Your task to perform on an android device: Set the phone to "Do not disturb". Image 0: 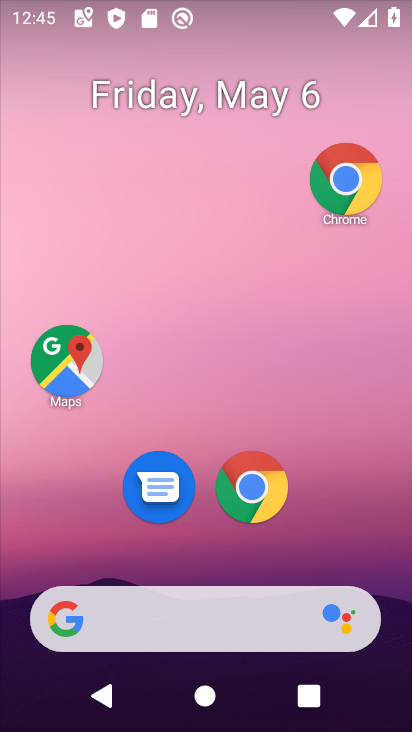
Step 0: drag from (353, 532) to (300, 183)
Your task to perform on an android device: Set the phone to "Do not disturb". Image 1: 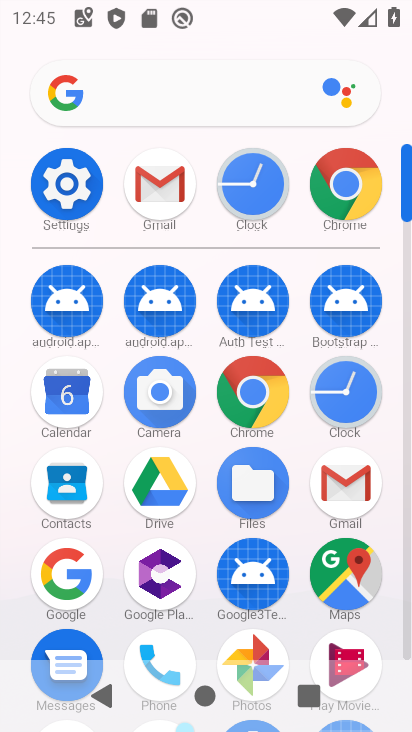
Step 1: click (88, 196)
Your task to perform on an android device: Set the phone to "Do not disturb". Image 2: 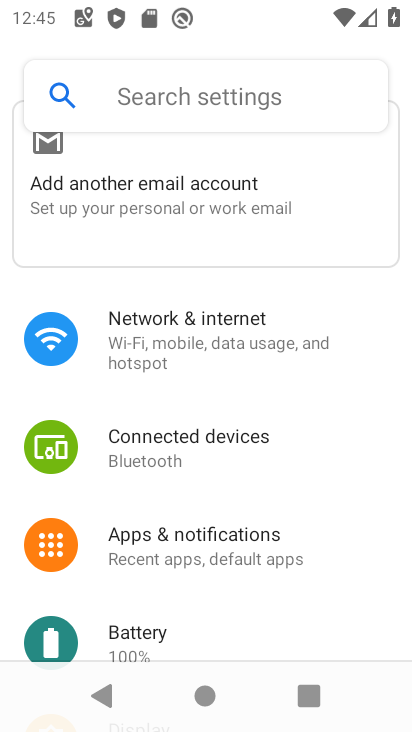
Step 2: drag from (208, 541) to (203, 438)
Your task to perform on an android device: Set the phone to "Do not disturb". Image 3: 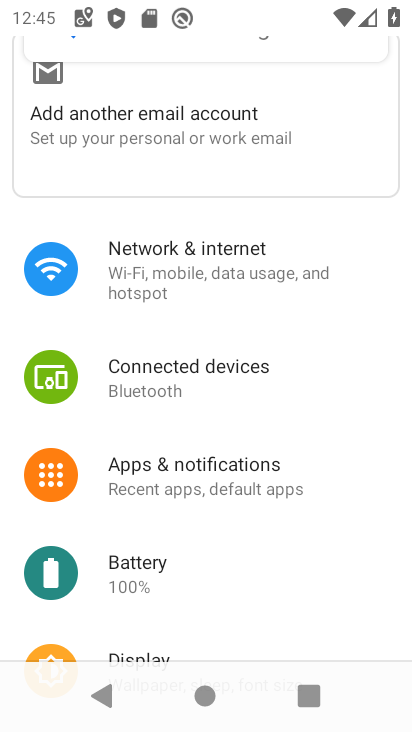
Step 3: drag from (179, 549) to (198, 307)
Your task to perform on an android device: Set the phone to "Do not disturb". Image 4: 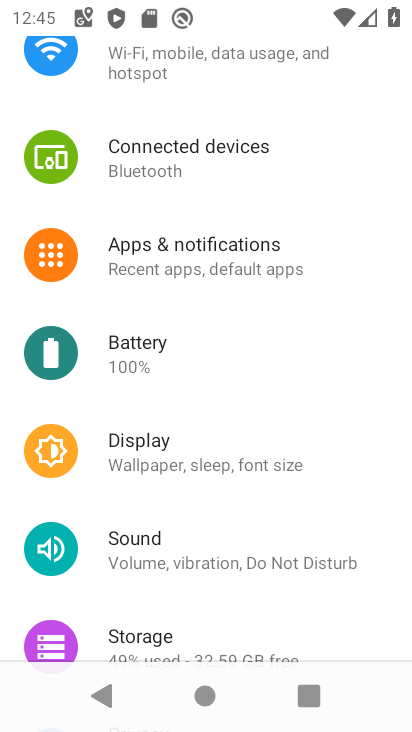
Step 4: click (223, 535)
Your task to perform on an android device: Set the phone to "Do not disturb". Image 5: 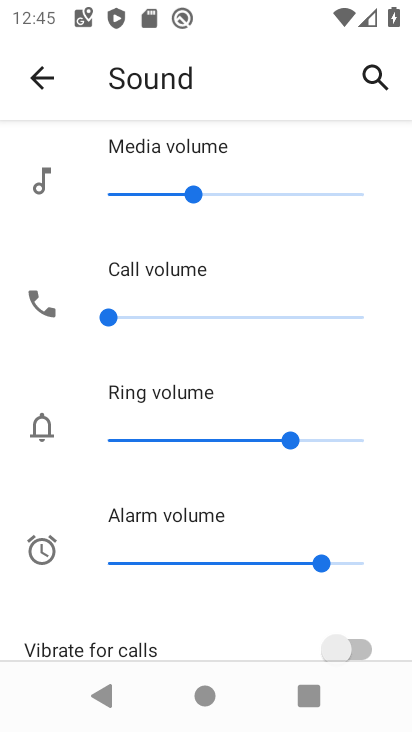
Step 5: drag from (219, 594) to (160, 198)
Your task to perform on an android device: Set the phone to "Do not disturb". Image 6: 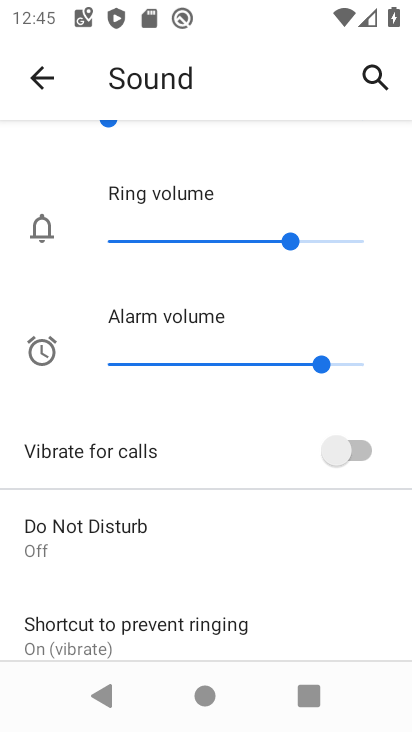
Step 6: click (145, 523)
Your task to perform on an android device: Set the phone to "Do not disturb". Image 7: 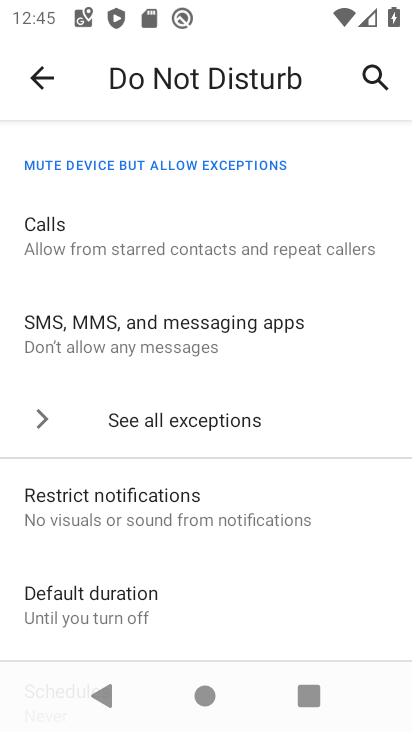
Step 7: drag from (275, 525) to (253, 104)
Your task to perform on an android device: Set the phone to "Do not disturb". Image 8: 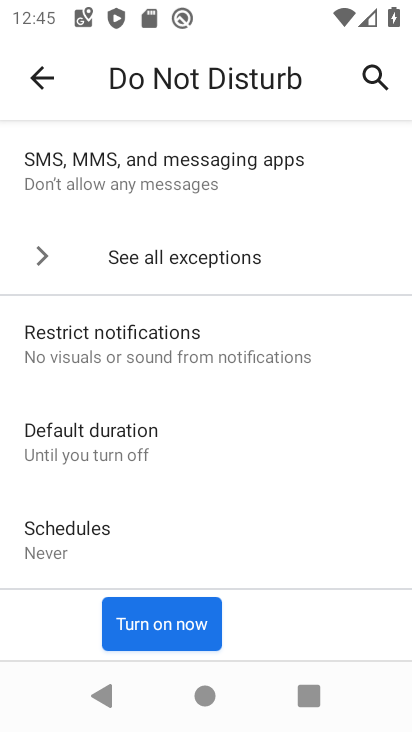
Step 8: click (179, 619)
Your task to perform on an android device: Set the phone to "Do not disturb". Image 9: 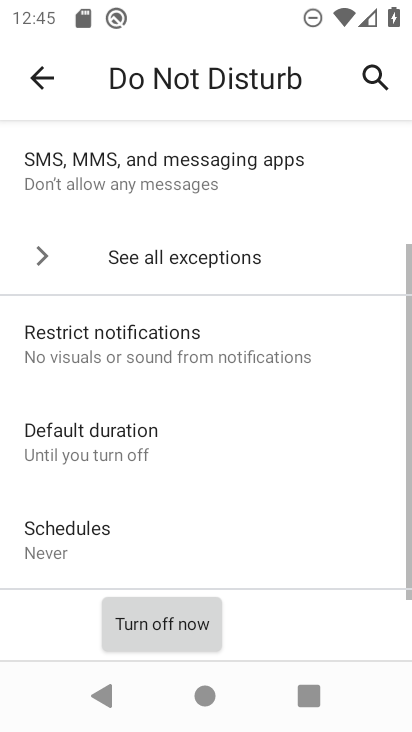
Step 9: task complete